Your task to perform on an android device: change the upload size in google photos Image 0: 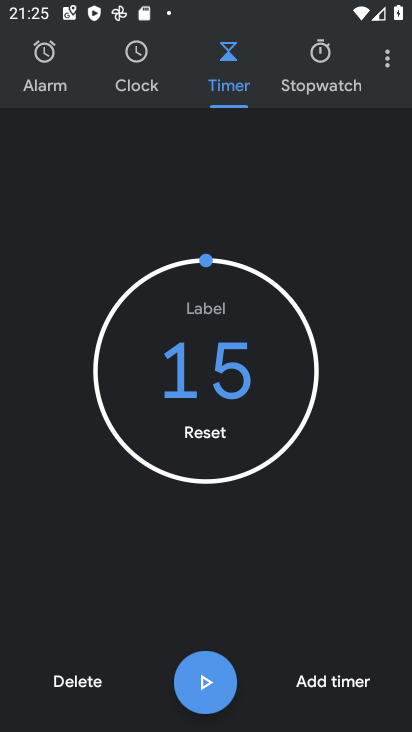
Step 0: press home button
Your task to perform on an android device: change the upload size in google photos Image 1: 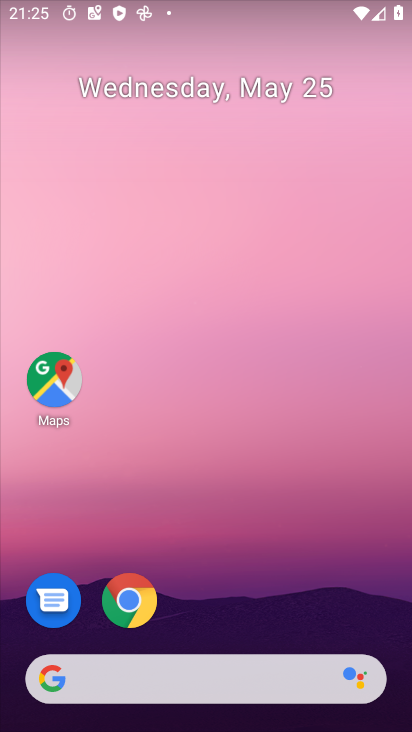
Step 1: drag from (348, 607) to (279, 201)
Your task to perform on an android device: change the upload size in google photos Image 2: 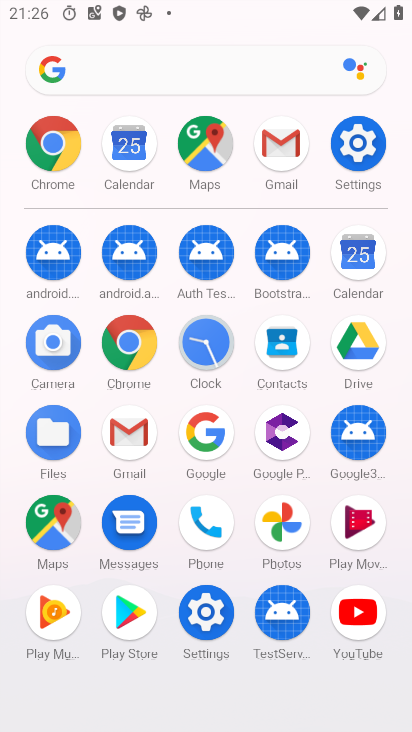
Step 2: click (283, 528)
Your task to perform on an android device: change the upload size in google photos Image 3: 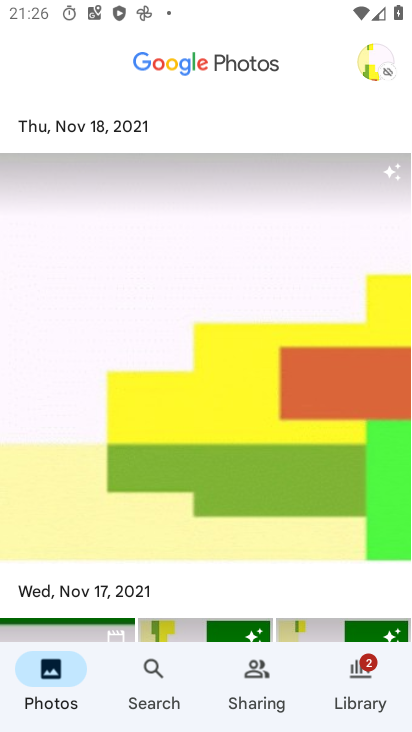
Step 3: click (356, 57)
Your task to perform on an android device: change the upload size in google photos Image 4: 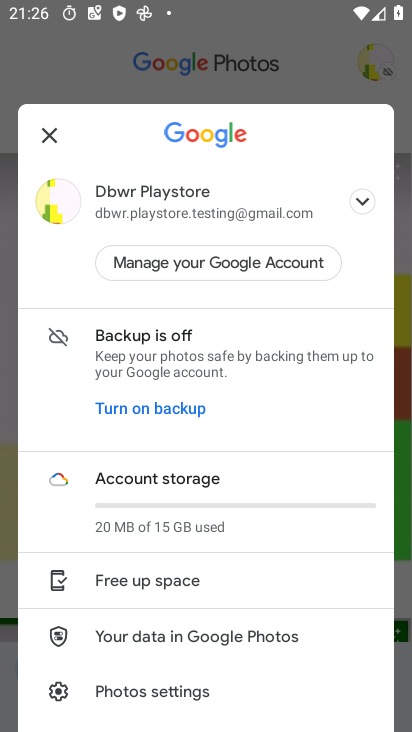
Step 4: drag from (236, 680) to (234, 300)
Your task to perform on an android device: change the upload size in google photos Image 5: 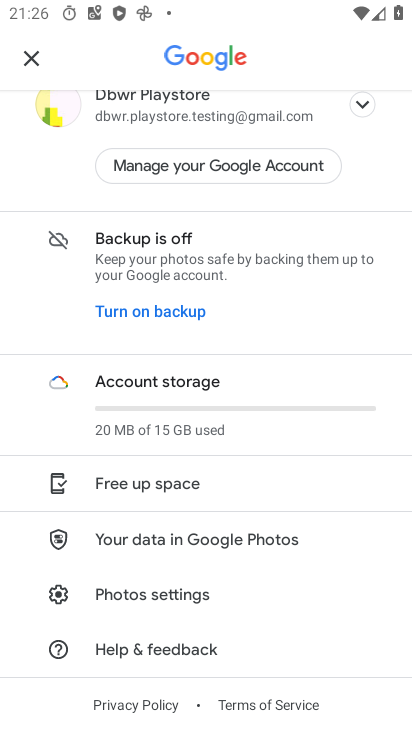
Step 5: click (199, 604)
Your task to perform on an android device: change the upload size in google photos Image 6: 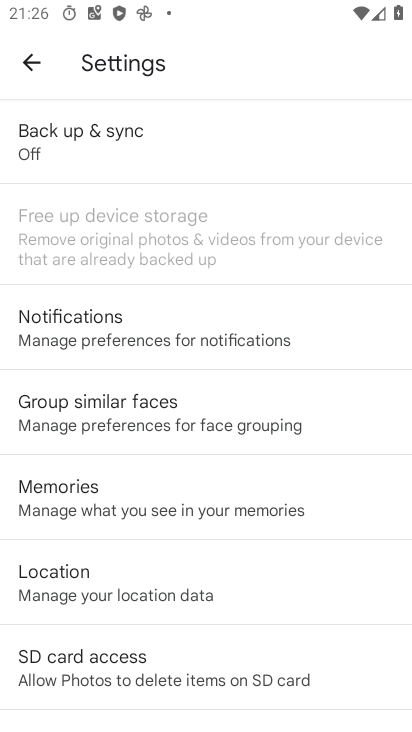
Step 6: click (192, 154)
Your task to perform on an android device: change the upload size in google photos Image 7: 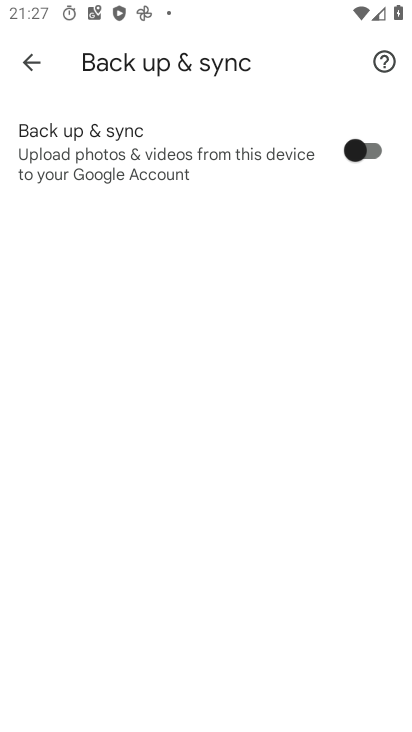
Step 7: task complete